Your task to perform on an android device: Search for "jbl charge 4" on ebay, select the first entry, add it to the cart, then select checkout. Image 0: 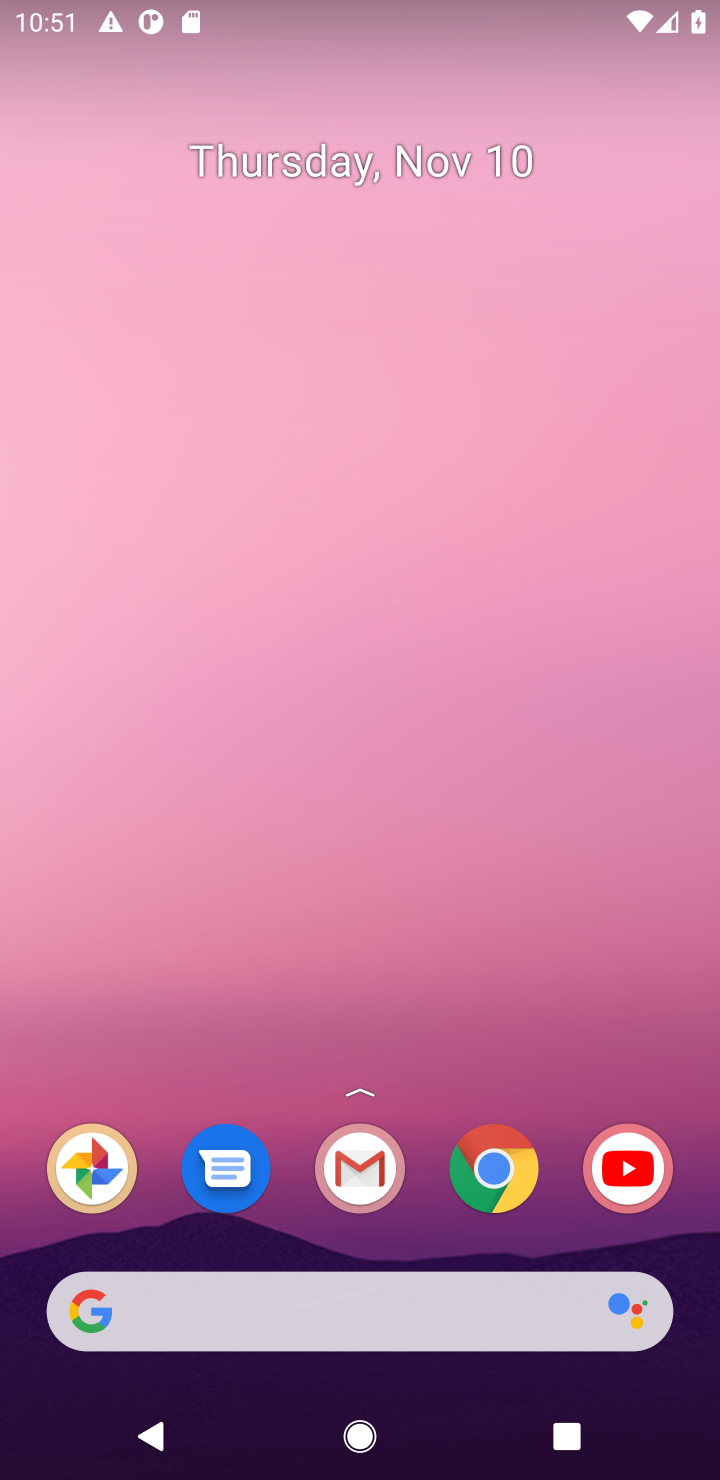
Step 0: click (499, 1155)
Your task to perform on an android device: Search for "jbl charge 4" on ebay, select the first entry, add it to the cart, then select checkout. Image 1: 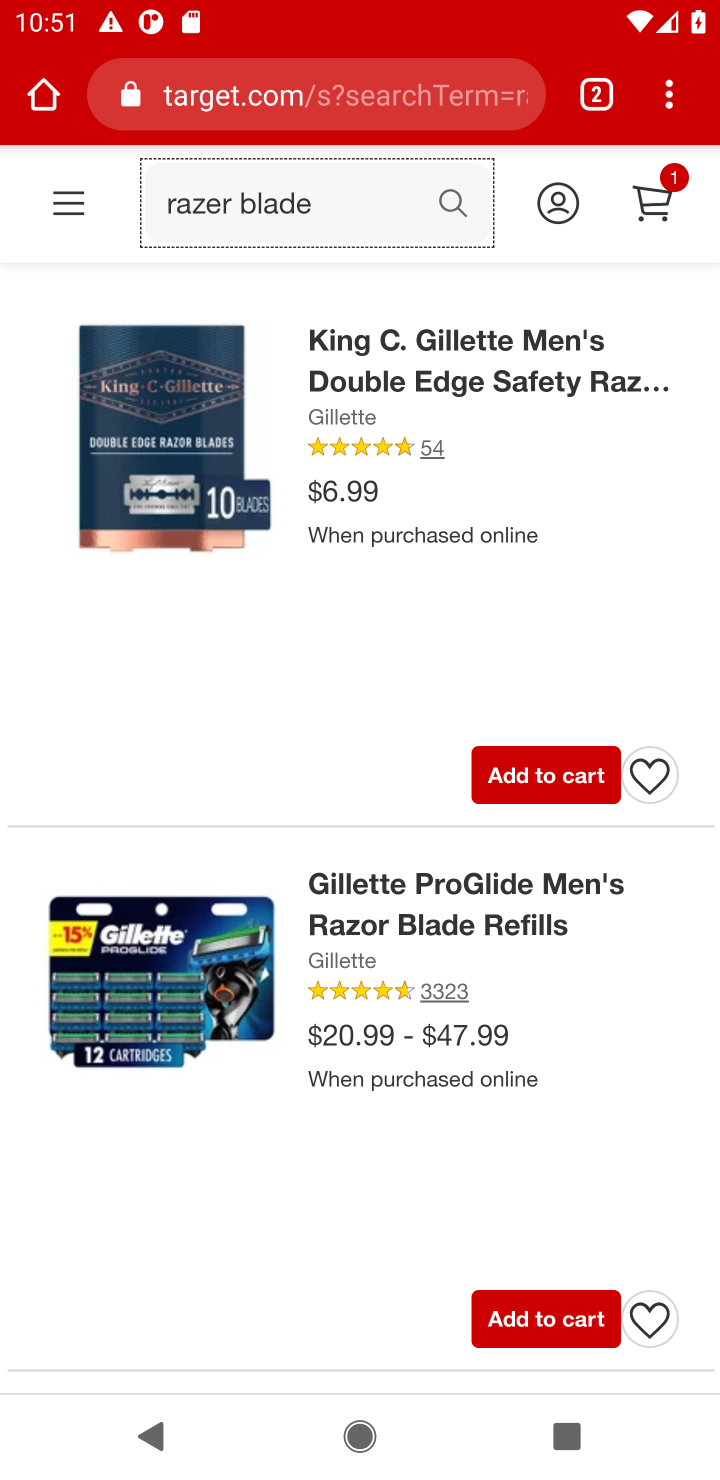
Step 1: click (261, 103)
Your task to perform on an android device: Search for "jbl charge 4" on ebay, select the first entry, add it to the cart, then select checkout. Image 2: 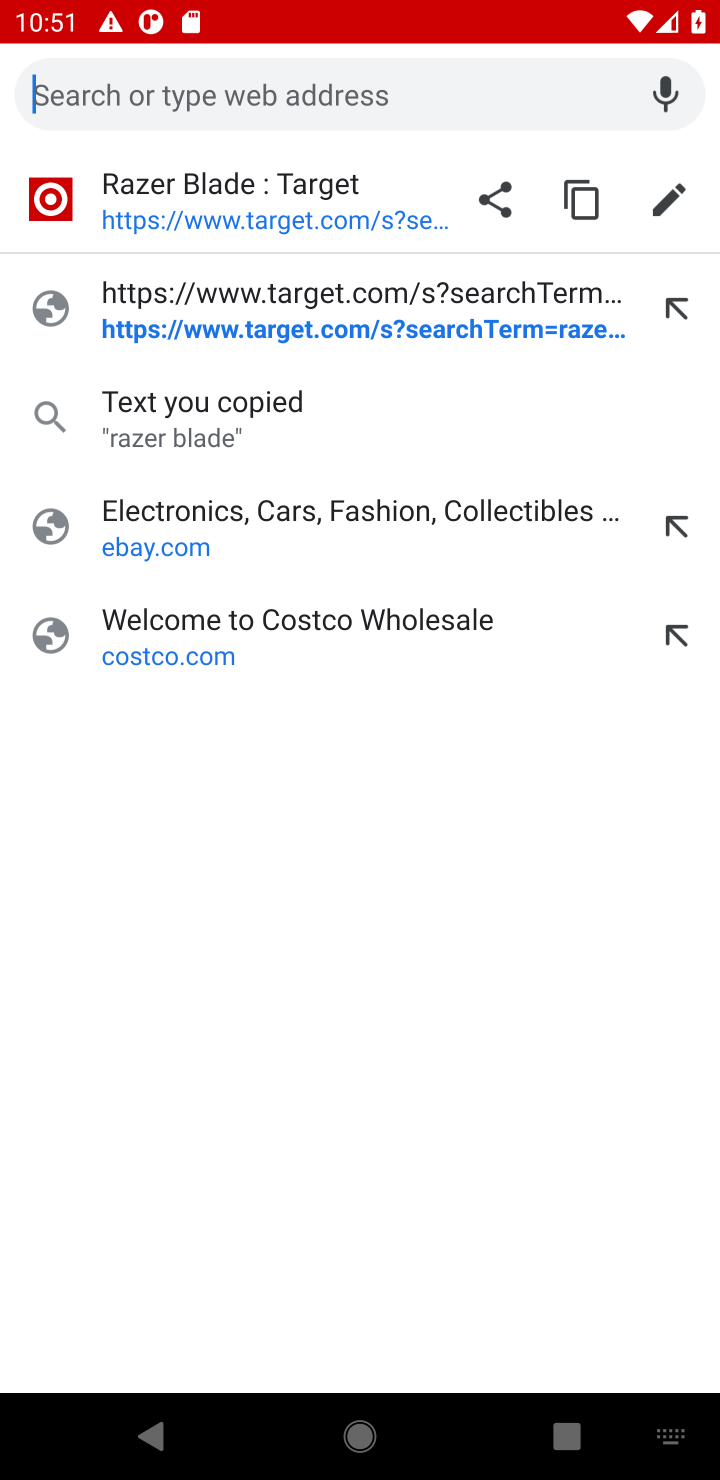
Step 2: click (172, 538)
Your task to perform on an android device: Search for "jbl charge 4" on ebay, select the first entry, add it to the cart, then select checkout. Image 3: 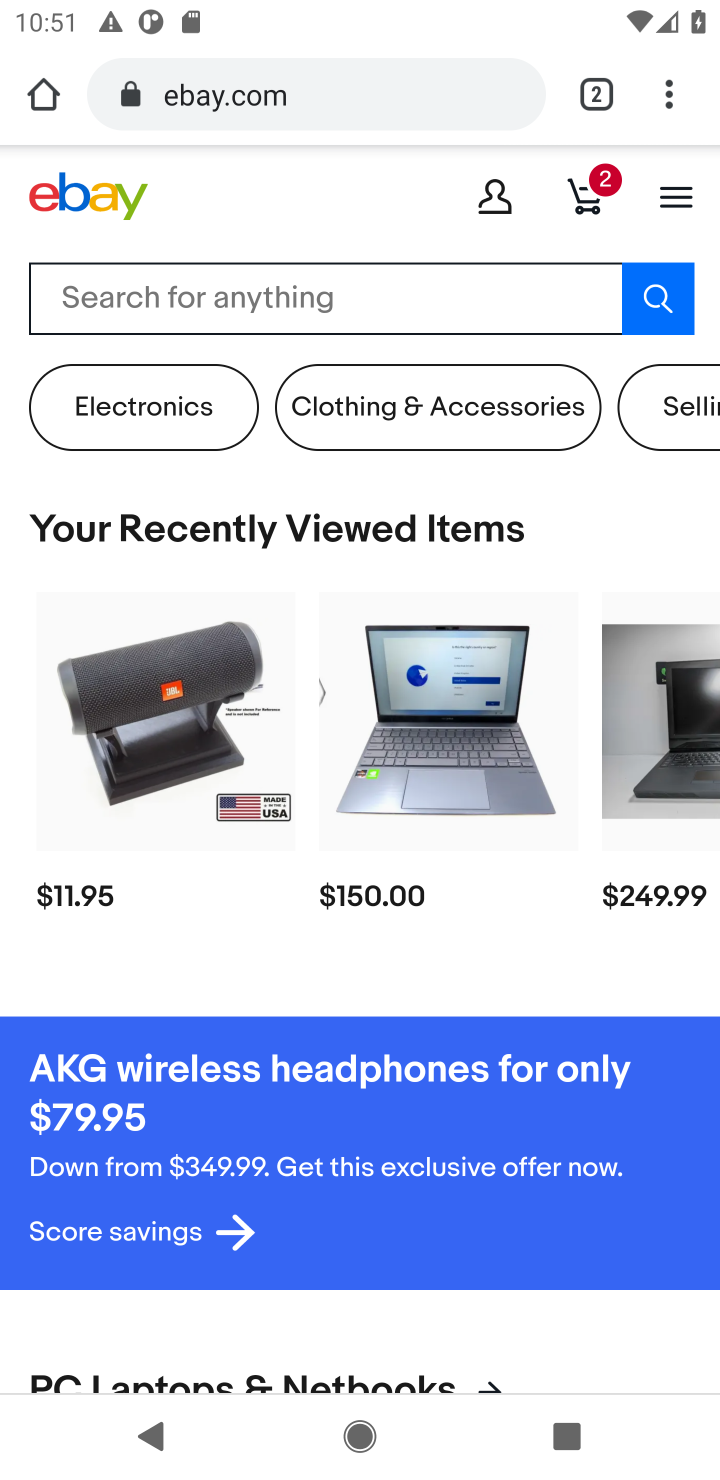
Step 3: click (174, 298)
Your task to perform on an android device: Search for "jbl charge 4" on ebay, select the first entry, add it to the cart, then select checkout. Image 4: 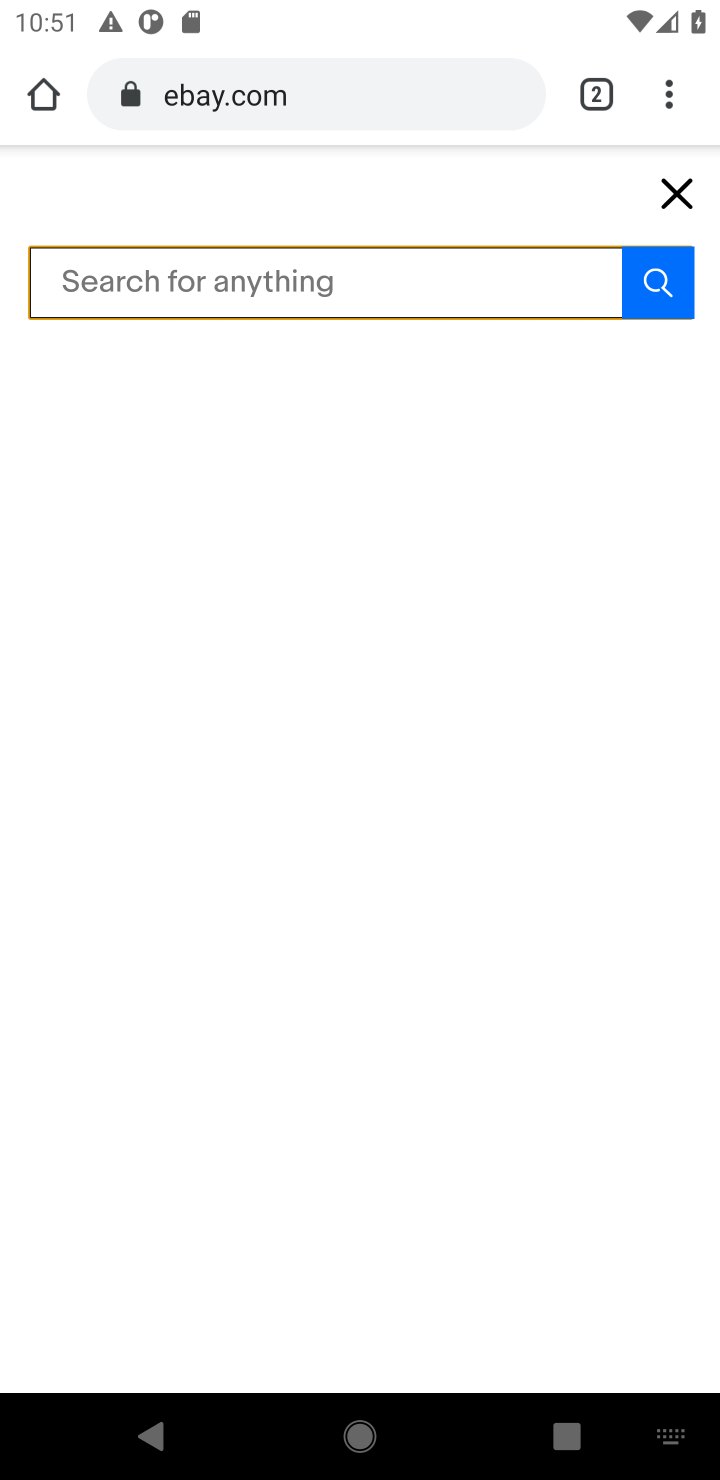
Step 4: type "jbl charge 4"
Your task to perform on an android device: Search for "jbl charge 4" on ebay, select the first entry, add it to the cart, then select checkout. Image 5: 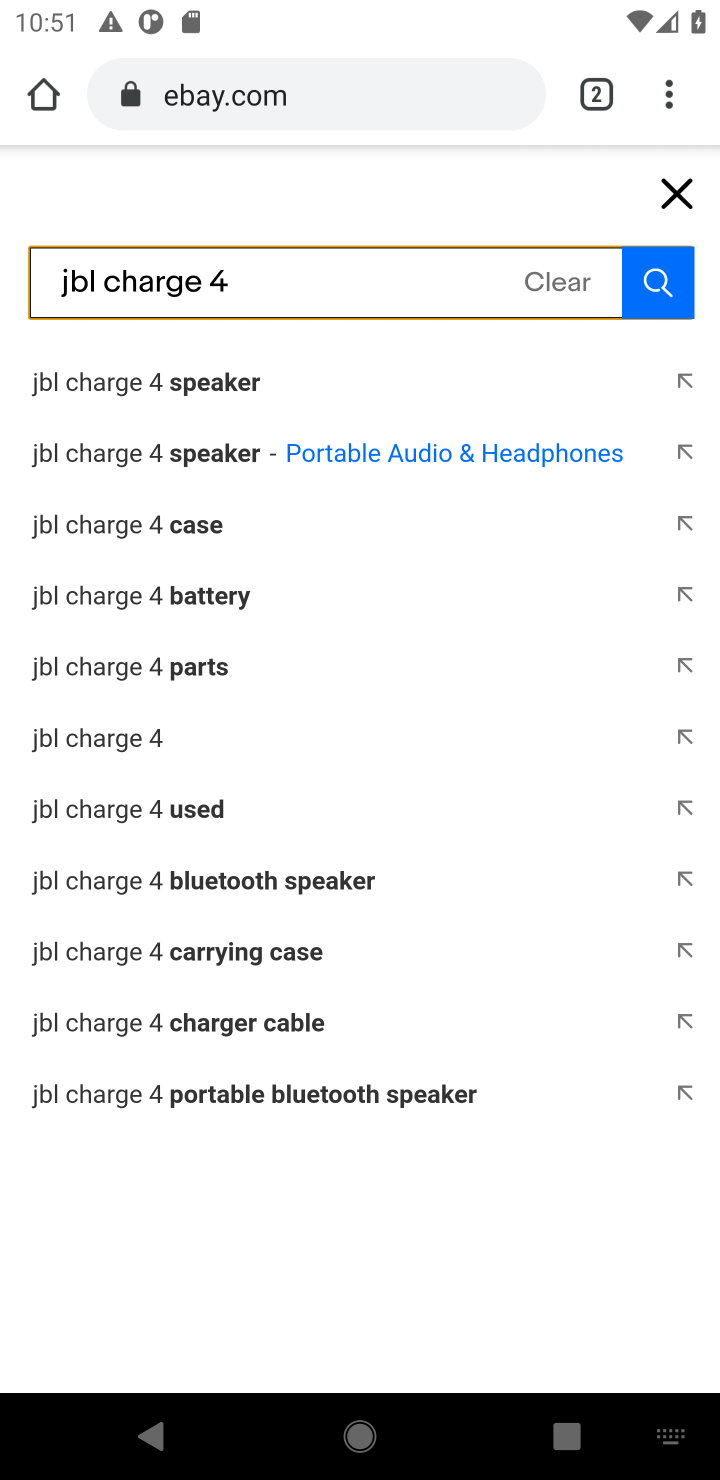
Step 5: click (101, 766)
Your task to perform on an android device: Search for "jbl charge 4" on ebay, select the first entry, add it to the cart, then select checkout. Image 6: 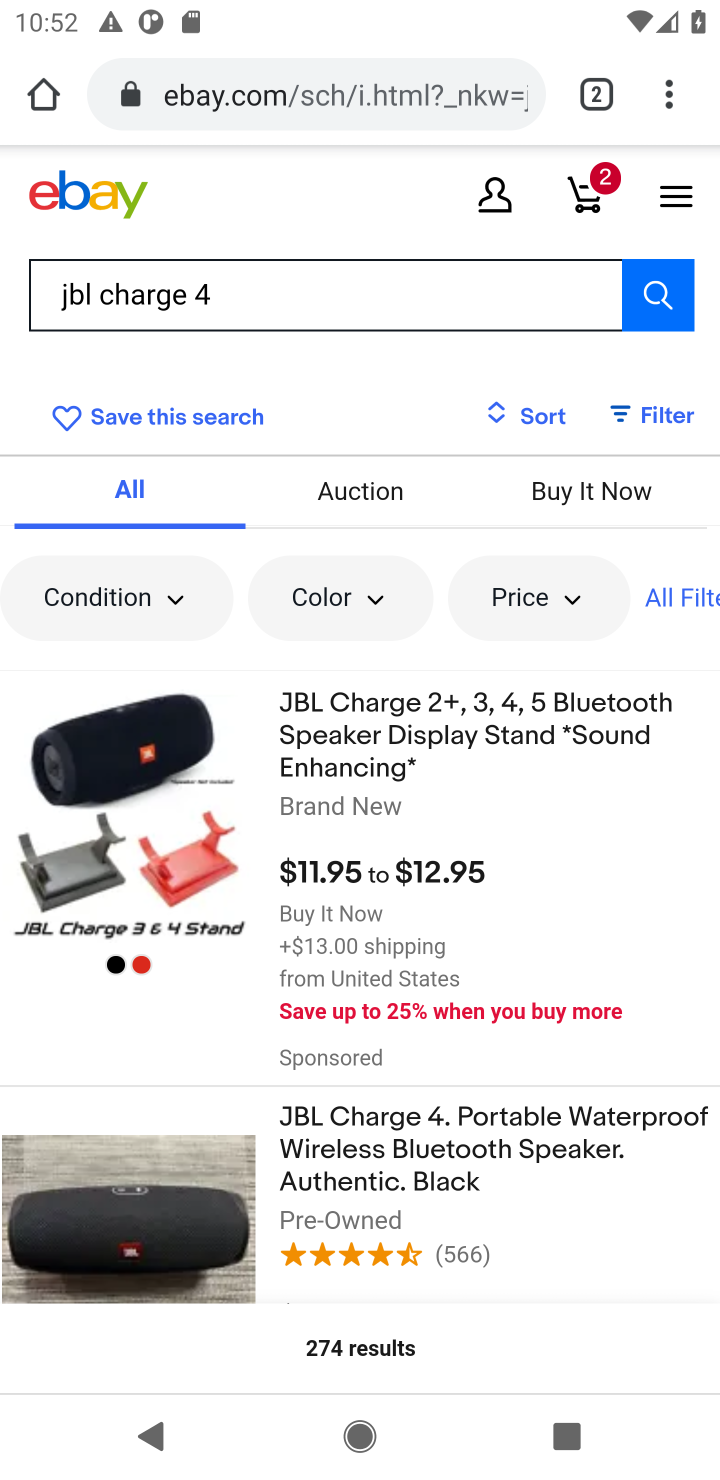
Step 6: click (157, 800)
Your task to perform on an android device: Search for "jbl charge 4" on ebay, select the first entry, add it to the cart, then select checkout. Image 7: 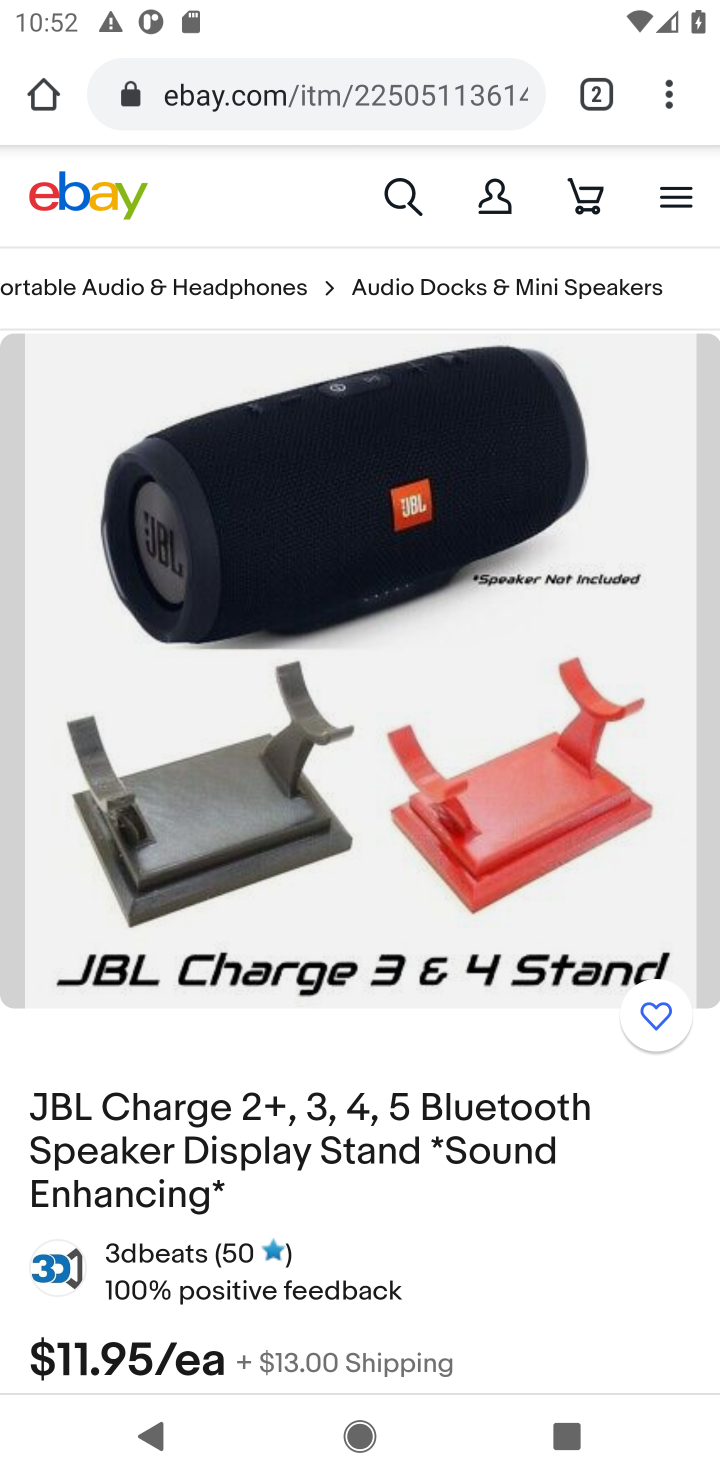
Step 7: drag from (374, 977) to (366, 483)
Your task to perform on an android device: Search for "jbl charge 4" on ebay, select the first entry, add it to the cart, then select checkout. Image 8: 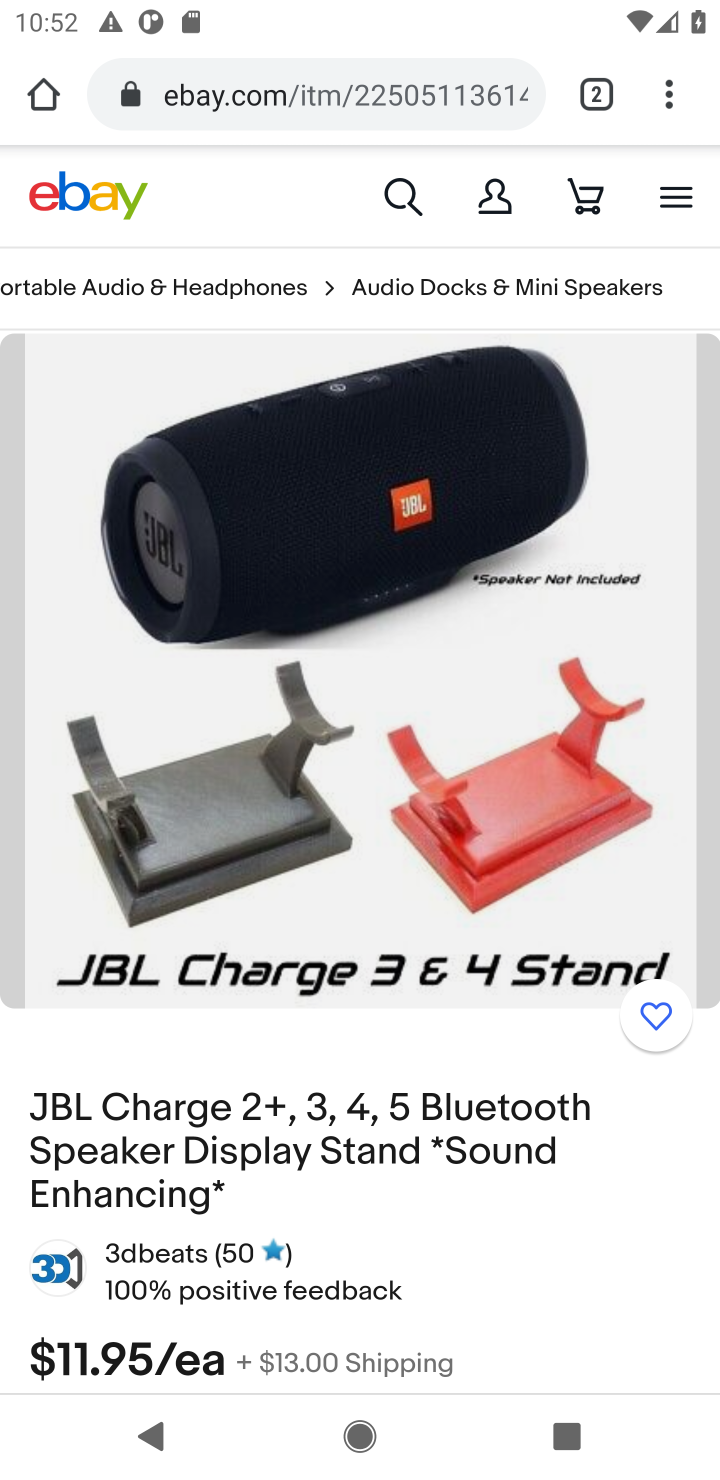
Step 8: drag from (334, 964) to (326, 513)
Your task to perform on an android device: Search for "jbl charge 4" on ebay, select the first entry, add it to the cart, then select checkout. Image 9: 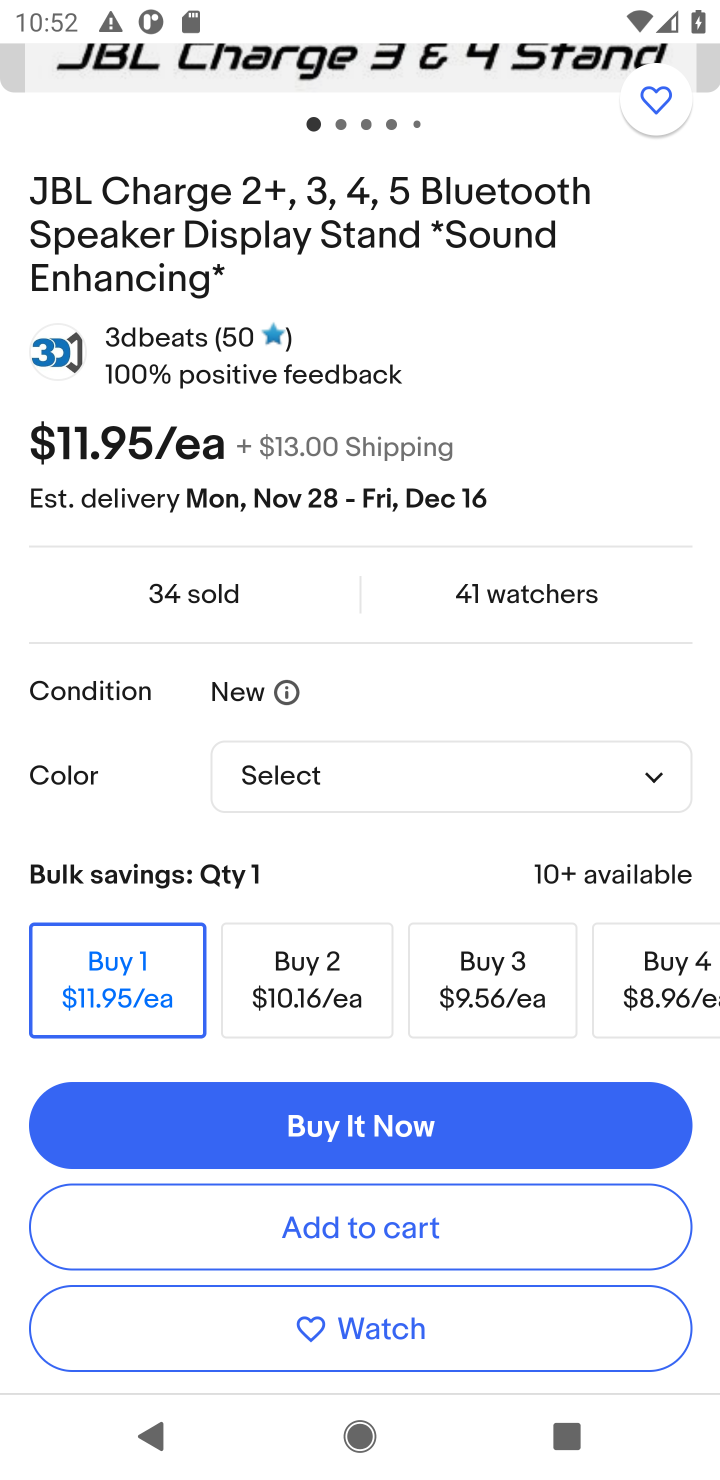
Step 9: drag from (354, 1104) to (368, 737)
Your task to perform on an android device: Search for "jbl charge 4" on ebay, select the first entry, add it to the cart, then select checkout. Image 10: 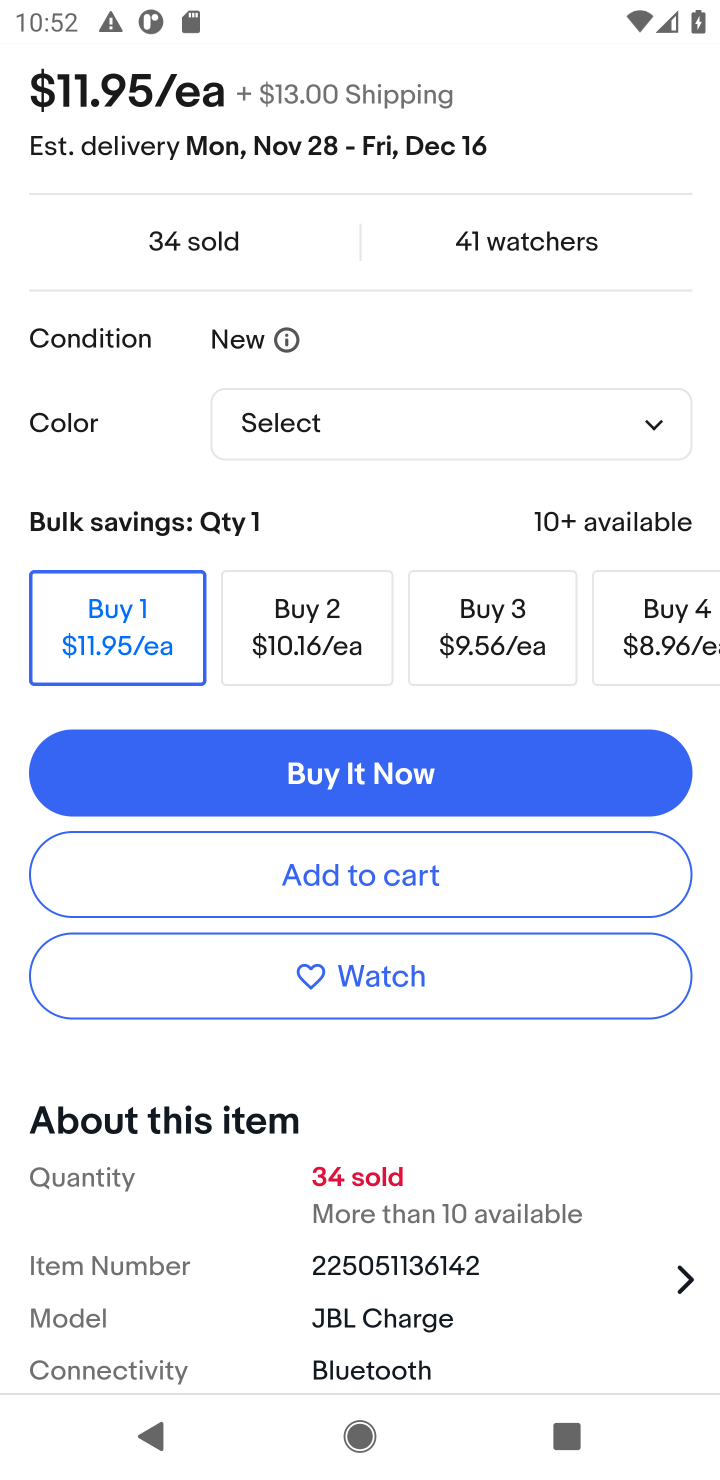
Step 10: click (343, 861)
Your task to perform on an android device: Search for "jbl charge 4" on ebay, select the first entry, add it to the cart, then select checkout. Image 11: 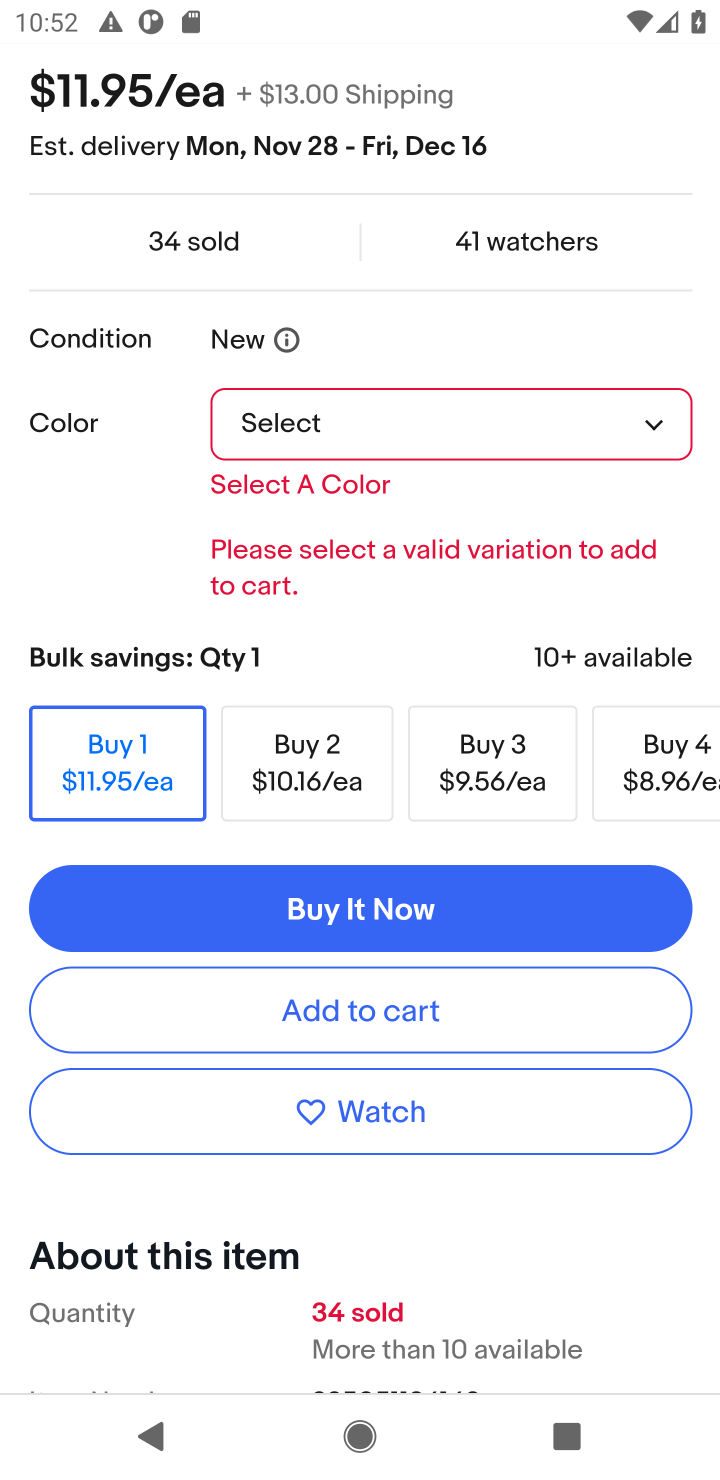
Step 11: click (651, 421)
Your task to perform on an android device: Search for "jbl charge 4" on ebay, select the first entry, add it to the cart, then select checkout. Image 12: 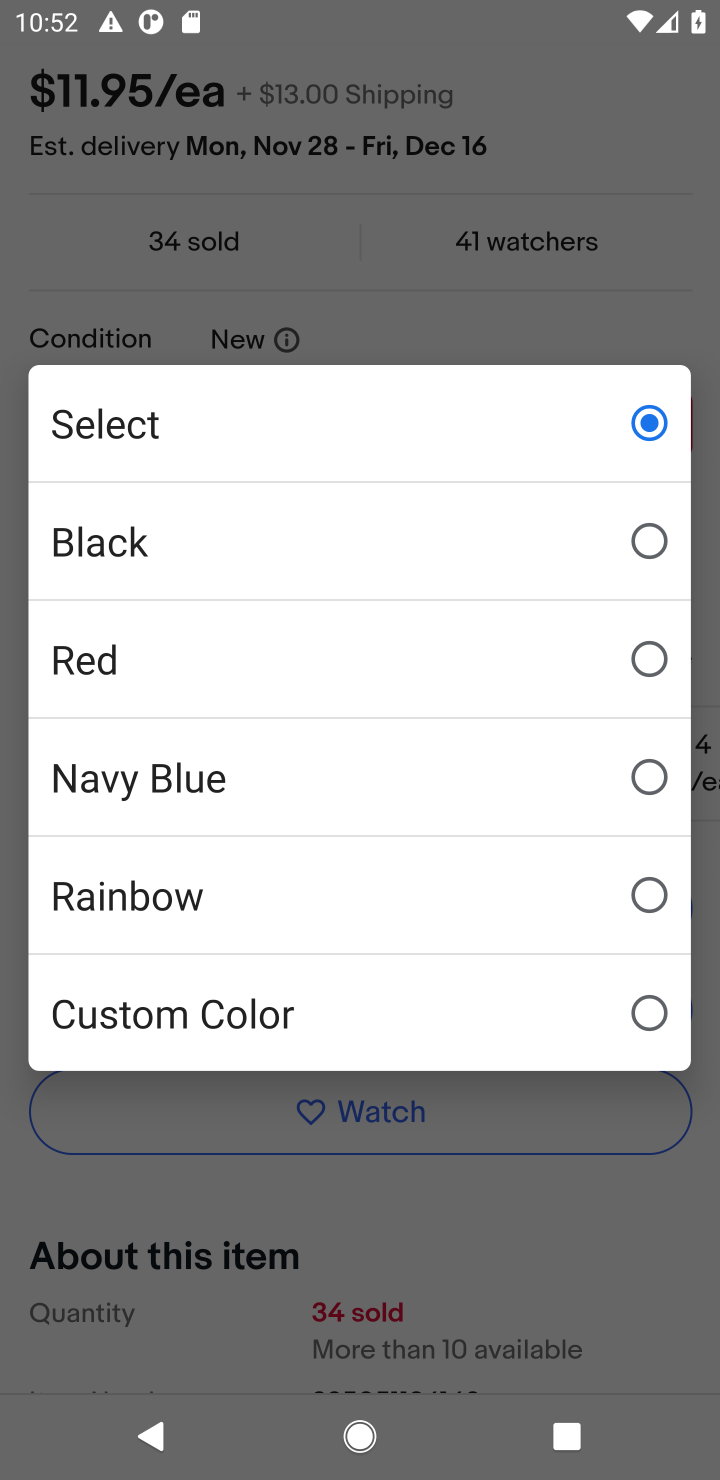
Step 12: click (89, 538)
Your task to perform on an android device: Search for "jbl charge 4" on ebay, select the first entry, add it to the cart, then select checkout. Image 13: 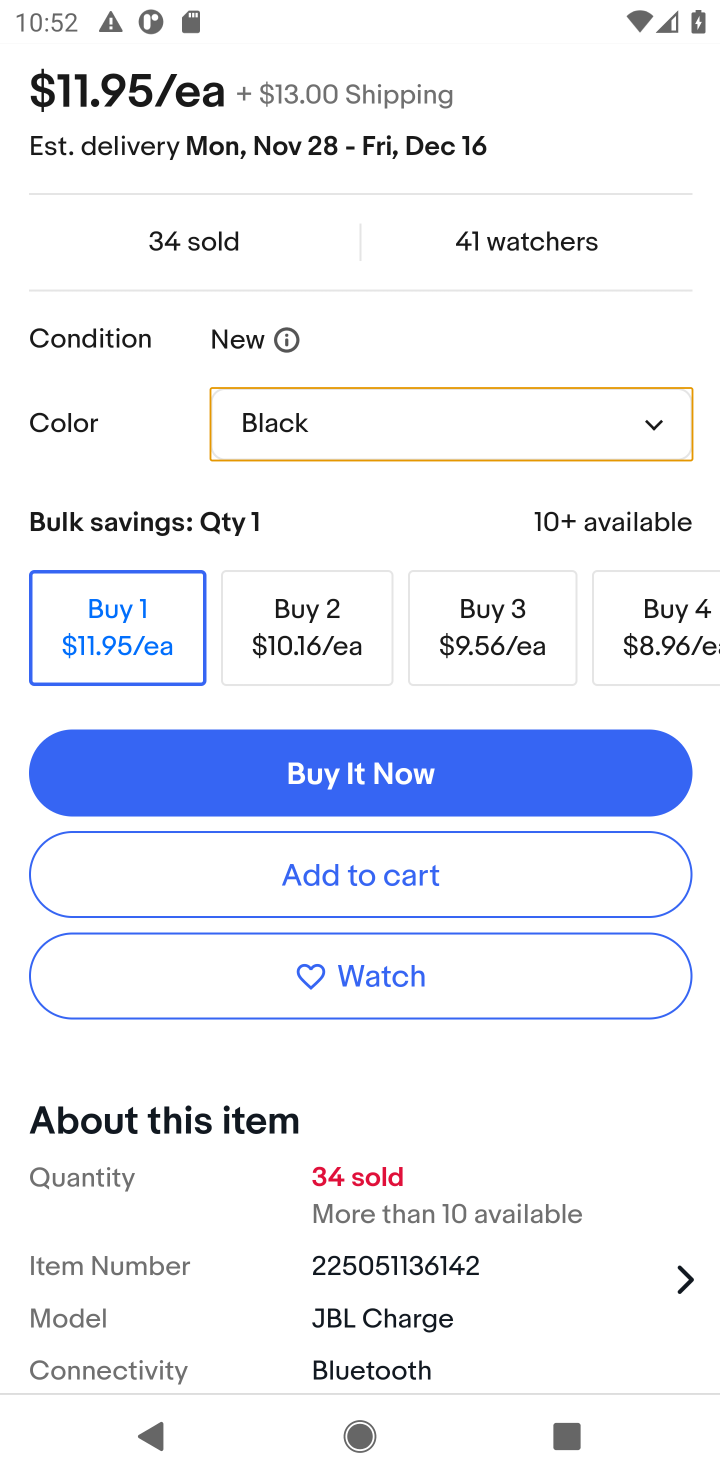
Step 13: click (336, 857)
Your task to perform on an android device: Search for "jbl charge 4" on ebay, select the first entry, add it to the cart, then select checkout. Image 14: 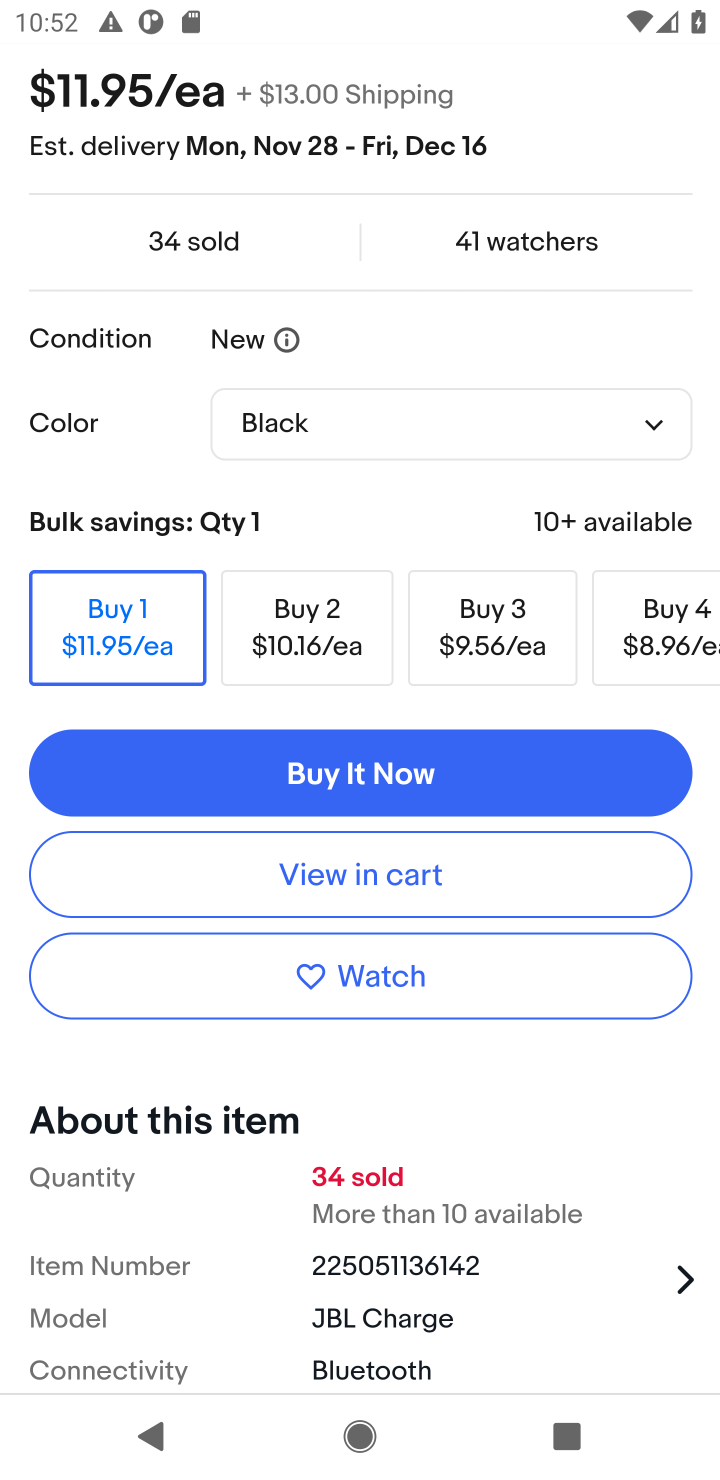
Step 14: click (336, 874)
Your task to perform on an android device: Search for "jbl charge 4" on ebay, select the first entry, add it to the cart, then select checkout. Image 15: 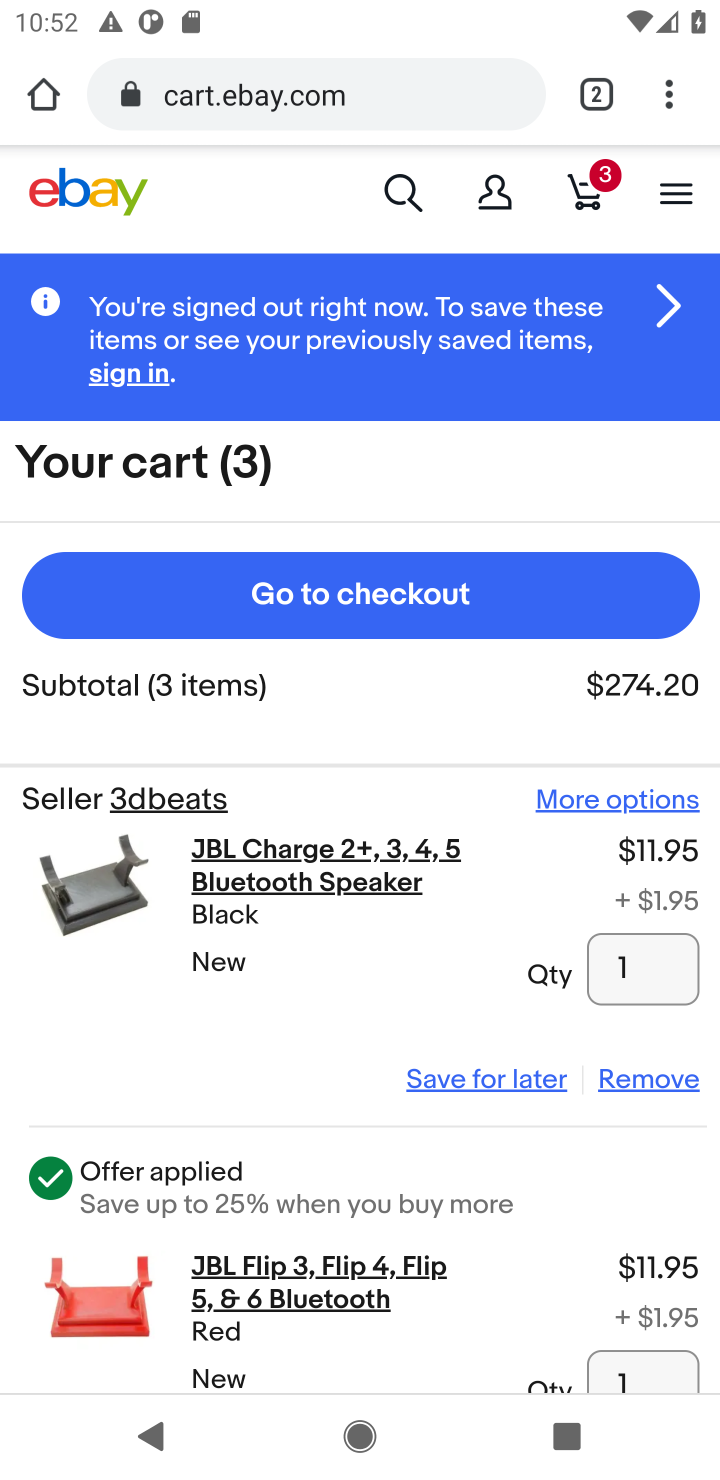
Step 15: click (348, 609)
Your task to perform on an android device: Search for "jbl charge 4" on ebay, select the first entry, add it to the cart, then select checkout. Image 16: 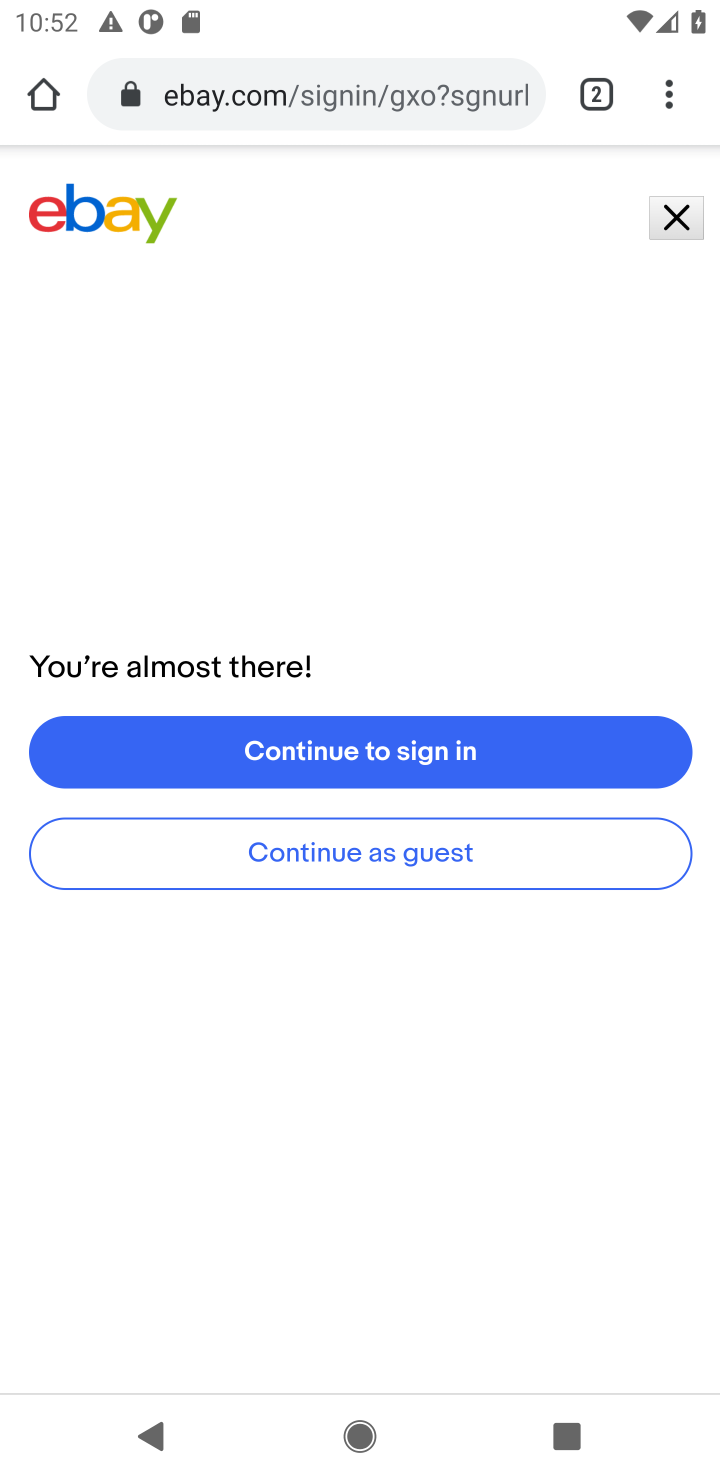
Step 16: task complete